Your task to perform on an android device: Open Amazon Image 0: 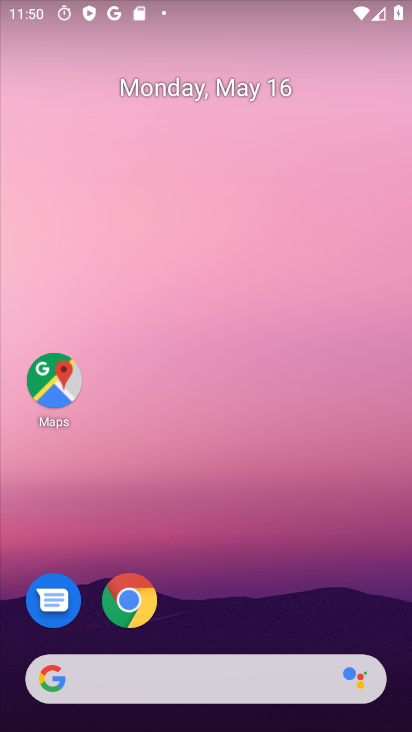
Step 0: click (127, 597)
Your task to perform on an android device: Open Amazon Image 1: 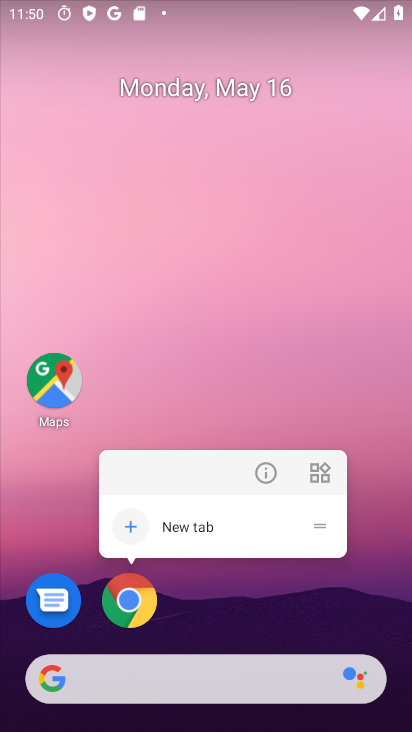
Step 1: click (131, 595)
Your task to perform on an android device: Open Amazon Image 2: 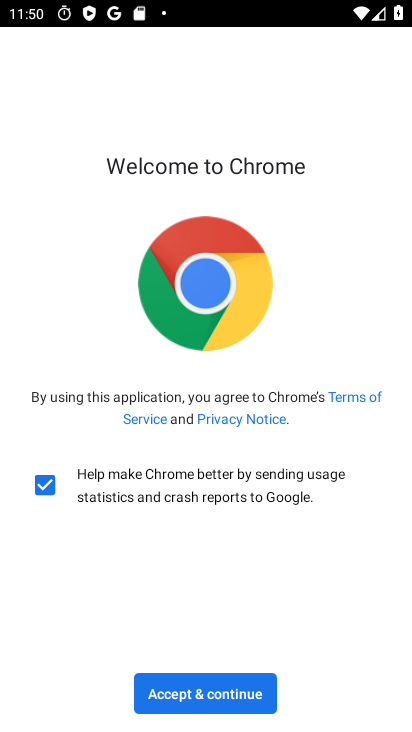
Step 2: click (173, 707)
Your task to perform on an android device: Open Amazon Image 3: 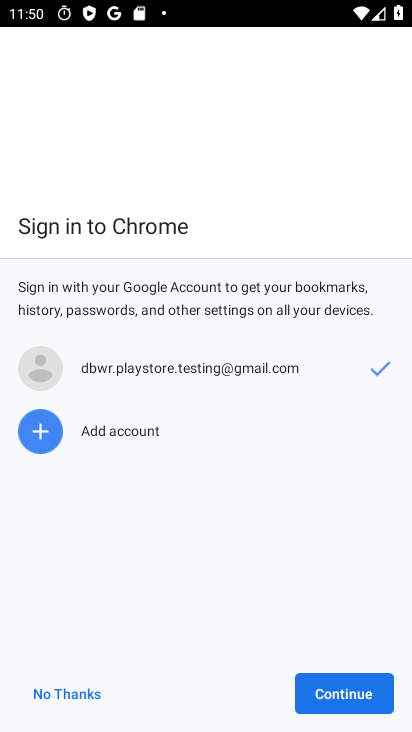
Step 3: click (316, 683)
Your task to perform on an android device: Open Amazon Image 4: 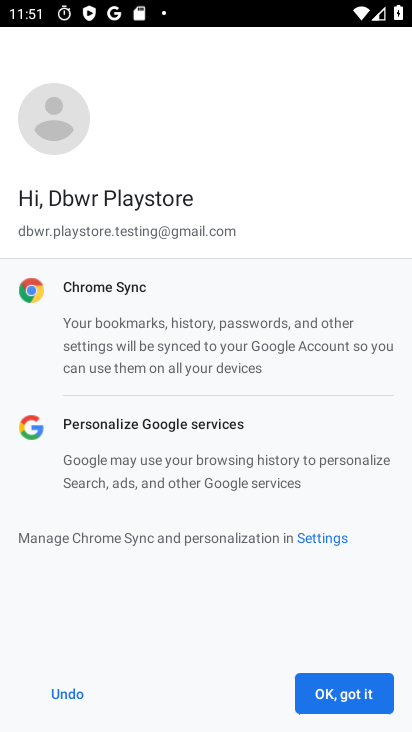
Step 4: click (345, 693)
Your task to perform on an android device: Open Amazon Image 5: 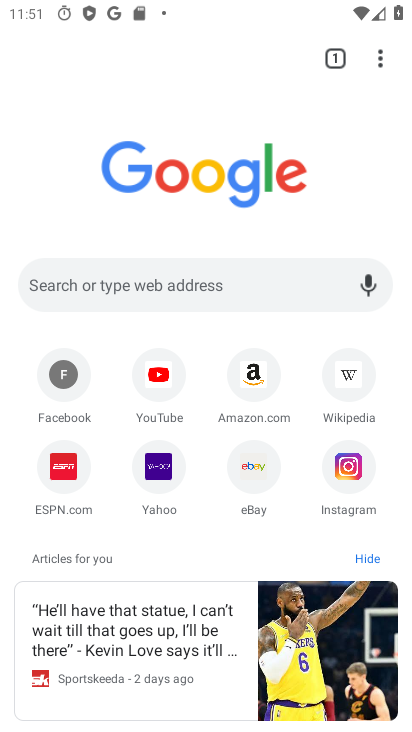
Step 5: click (244, 378)
Your task to perform on an android device: Open Amazon Image 6: 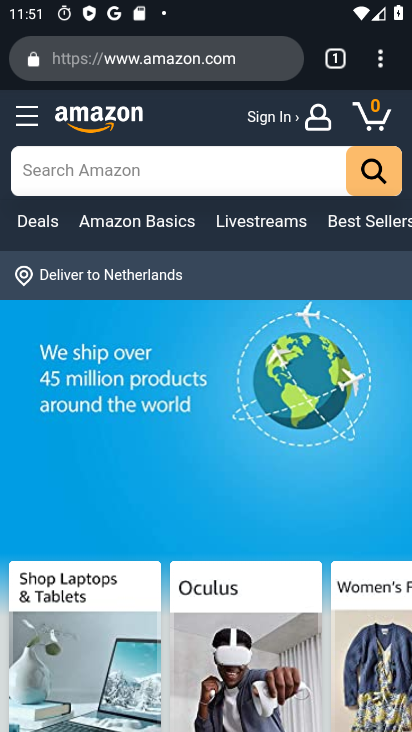
Step 6: task complete